Your task to perform on an android device: show emergency info Image 0: 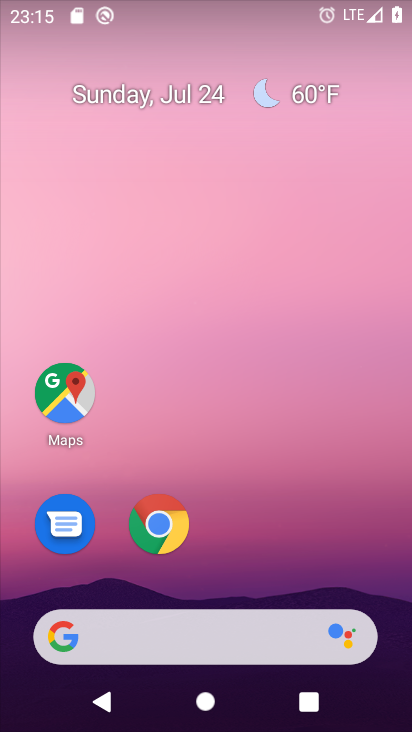
Step 0: drag from (265, 593) to (304, 11)
Your task to perform on an android device: show emergency info Image 1: 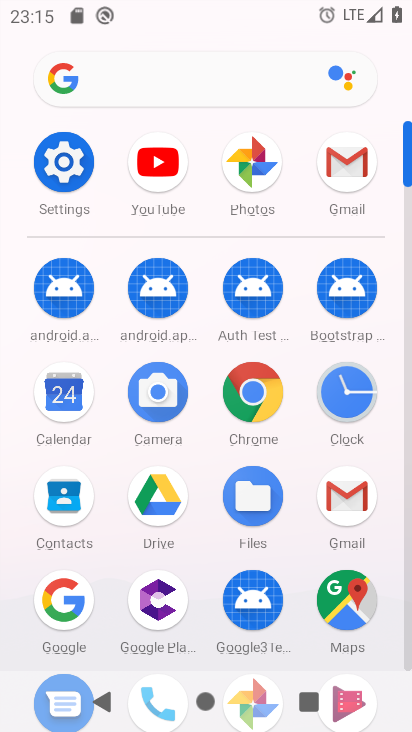
Step 1: click (77, 149)
Your task to perform on an android device: show emergency info Image 2: 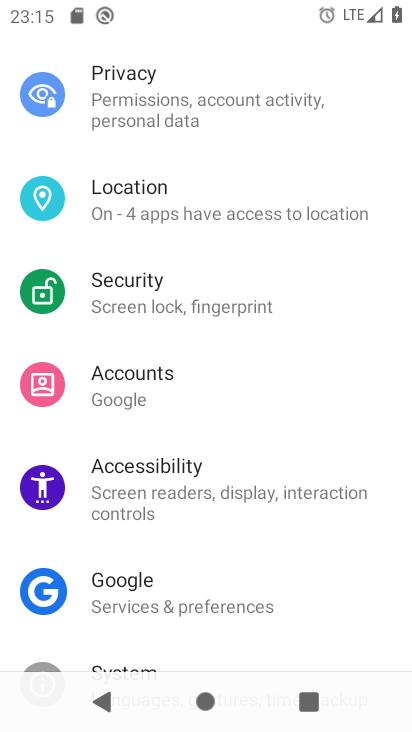
Step 2: drag from (199, 542) to (284, 91)
Your task to perform on an android device: show emergency info Image 3: 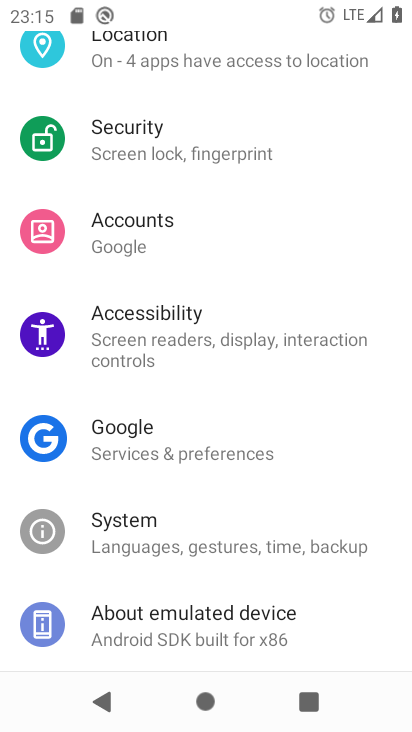
Step 3: click (218, 634)
Your task to perform on an android device: show emergency info Image 4: 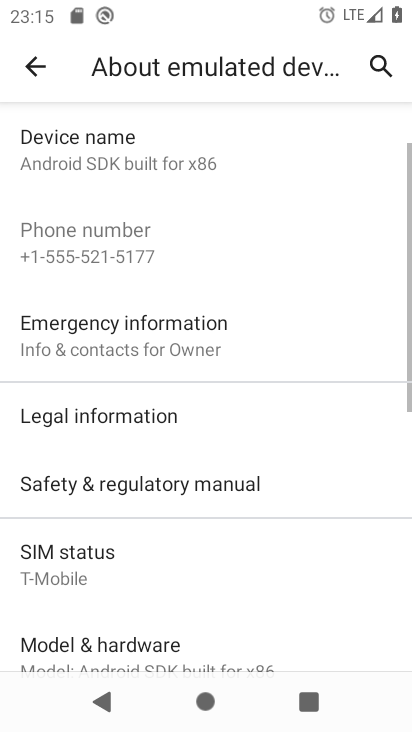
Step 4: click (190, 342)
Your task to perform on an android device: show emergency info Image 5: 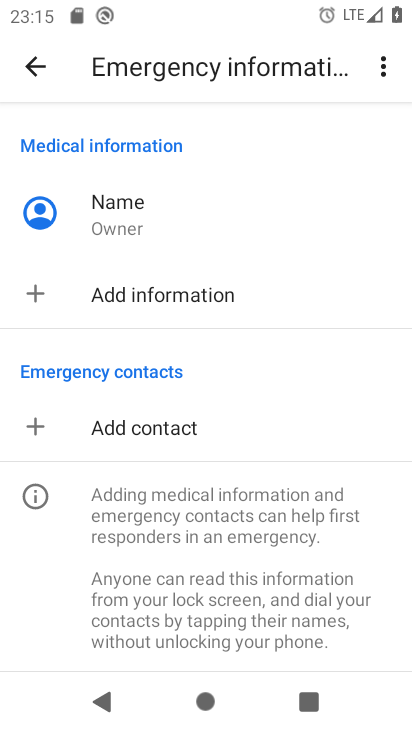
Step 5: task complete